Your task to perform on an android device: Do I have any events today? Image 0: 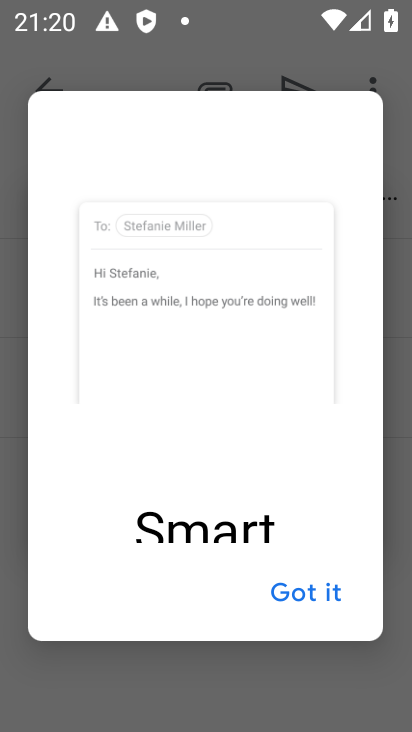
Step 0: click (304, 581)
Your task to perform on an android device: Do I have any events today? Image 1: 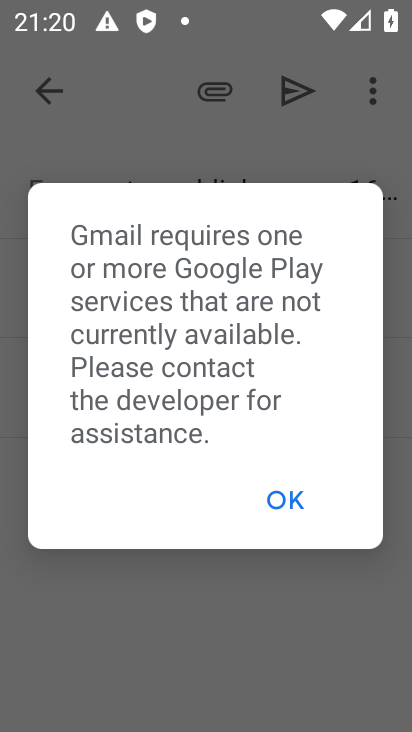
Step 1: click (307, 502)
Your task to perform on an android device: Do I have any events today? Image 2: 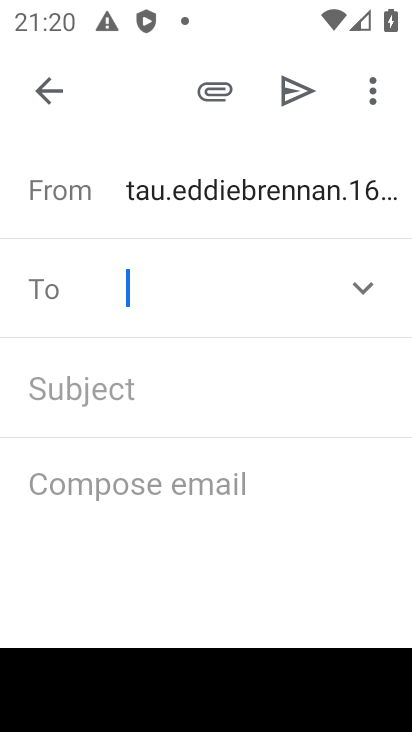
Step 2: press home button
Your task to perform on an android device: Do I have any events today? Image 3: 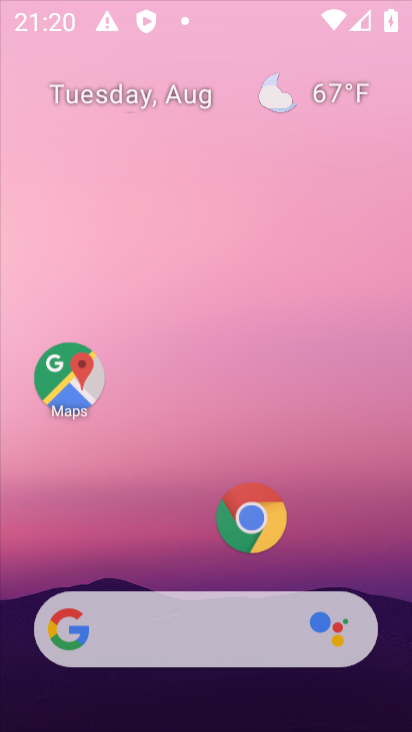
Step 3: drag from (209, 573) to (201, 44)
Your task to perform on an android device: Do I have any events today? Image 4: 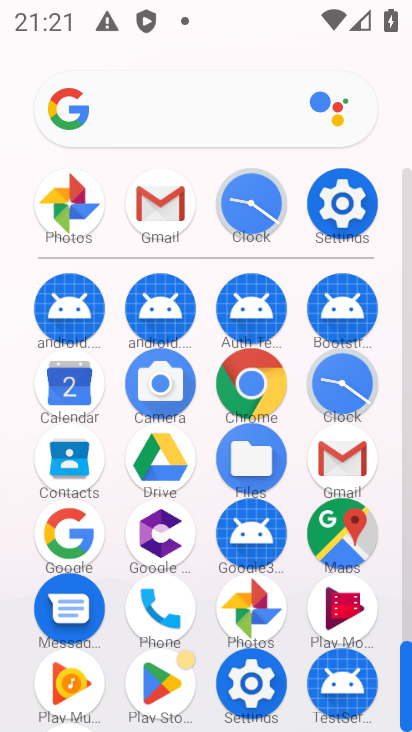
Step 4: click (58, 366)
Your task to perform on an android device: Do I have any events today? Image 5: 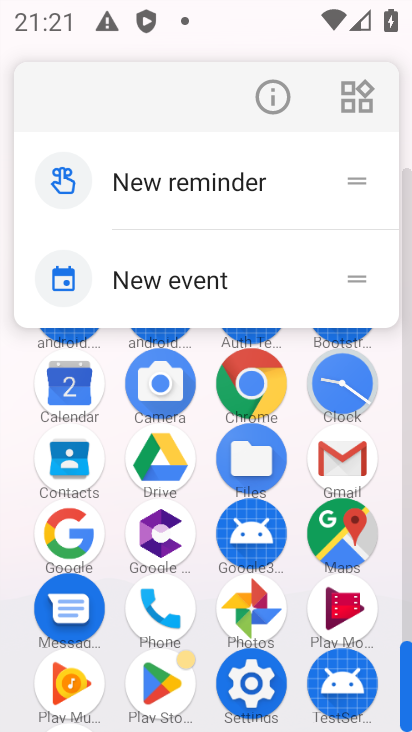
Step 5: click (277, 86)
Your task to perform on an android device: Do I have any events today? Image 6: 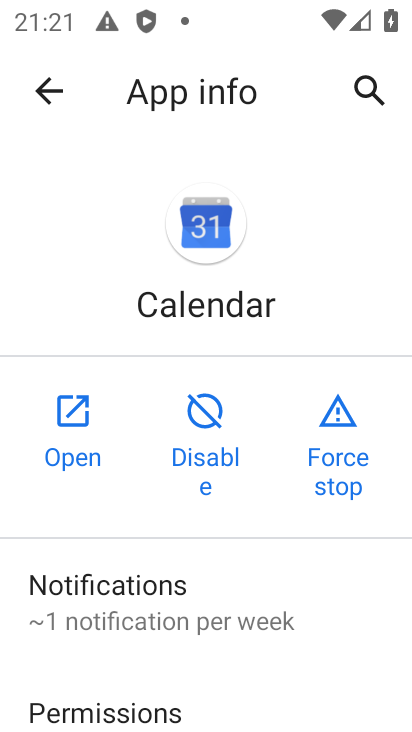
Step 6: click (73, 406)
Your task to perform on an android device: Do I have any events today? Image 7: 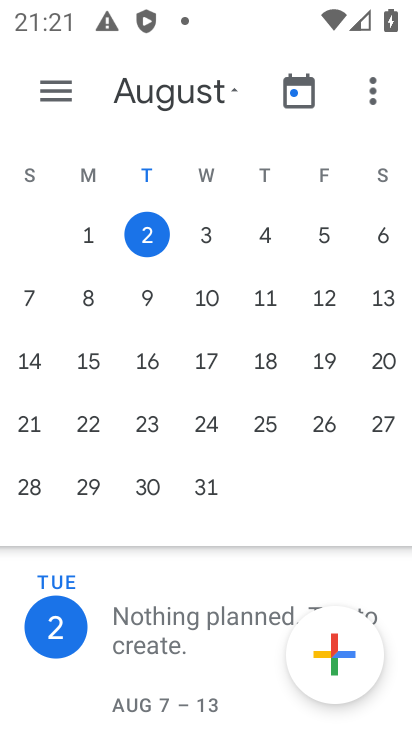
Step 7: click (298, 93)
Your task to perform on an android device: Do I have any events today? Image 8: 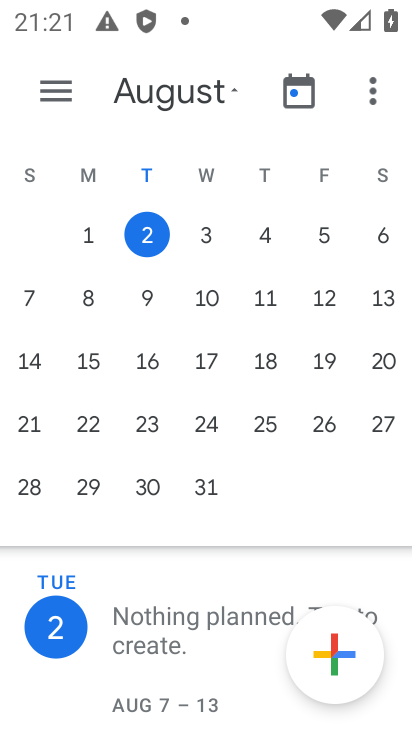
Step 8: click (147, 229)
Your task to perform on an android device: Do I have any events today? Image 9: 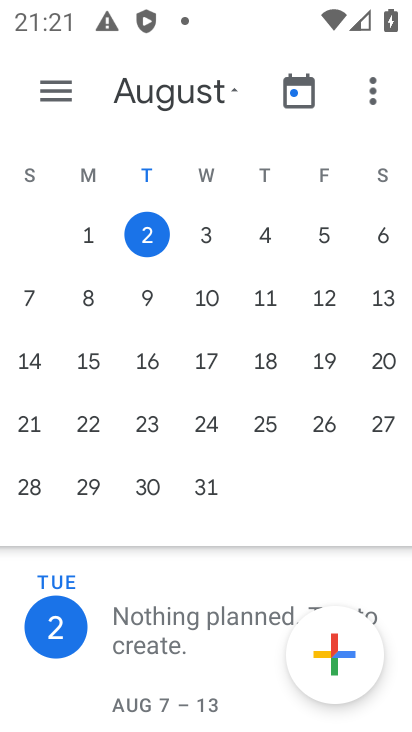
Step 9: task complete